Your task to perform on an android device: Open notification settings Image 0: 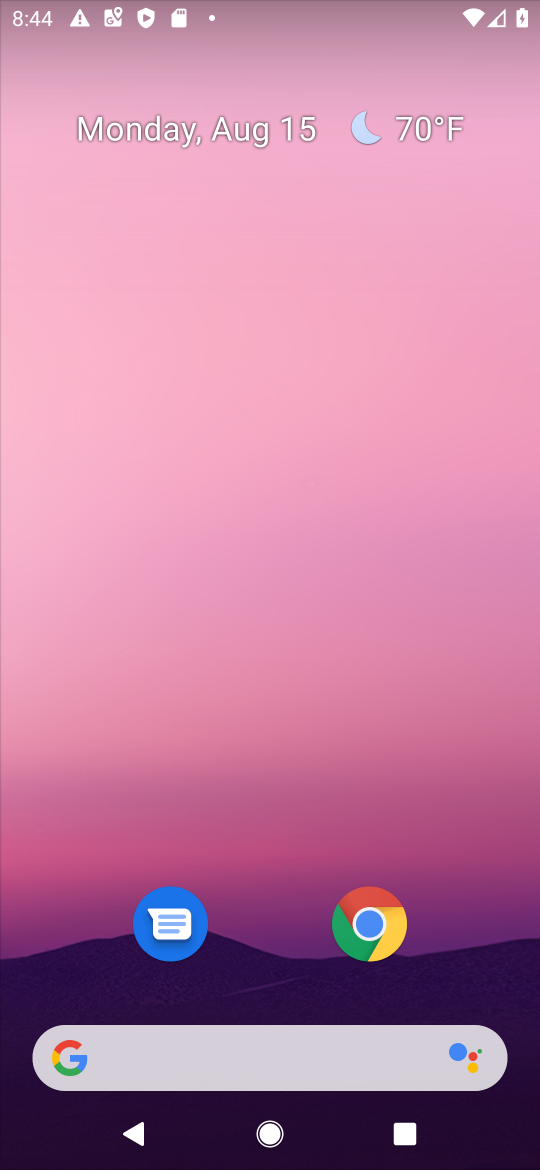
Step 0: drag from (497, 979) to (460, 226)
Your task to perform on an android device: Open notification settings Image 1: 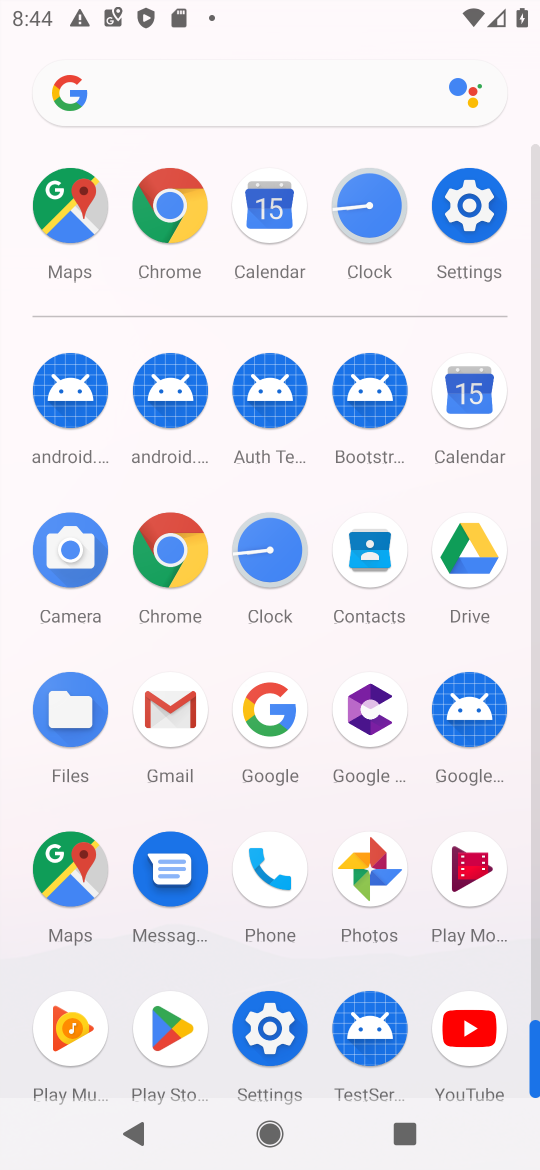
Step 1: click (269, 1027)
Your task to perform on an android device: Open notification settings Image 2: 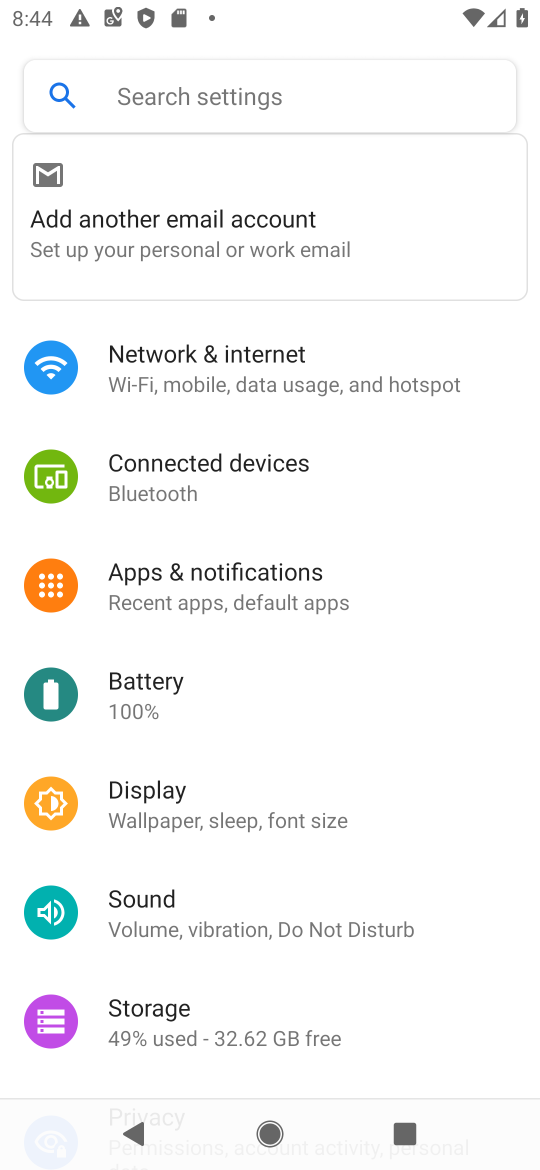
Step 2: click (211, 579)
Your task to perform on an android device: Open notification settings Image 3: 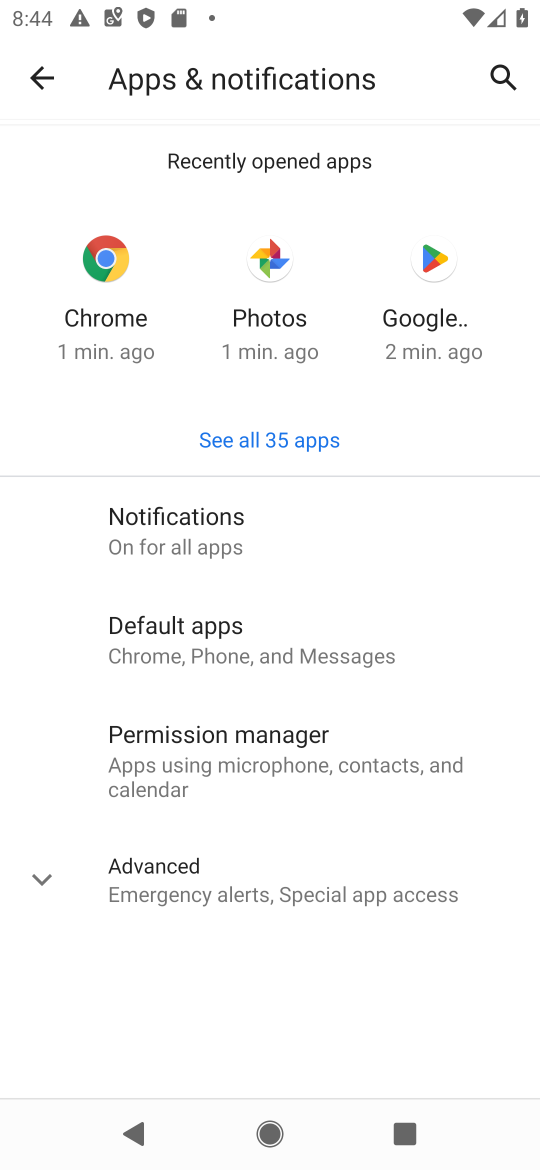
Step 3: click (170, 519)
Your task to perform on an android device: Open notification settings Image 4: 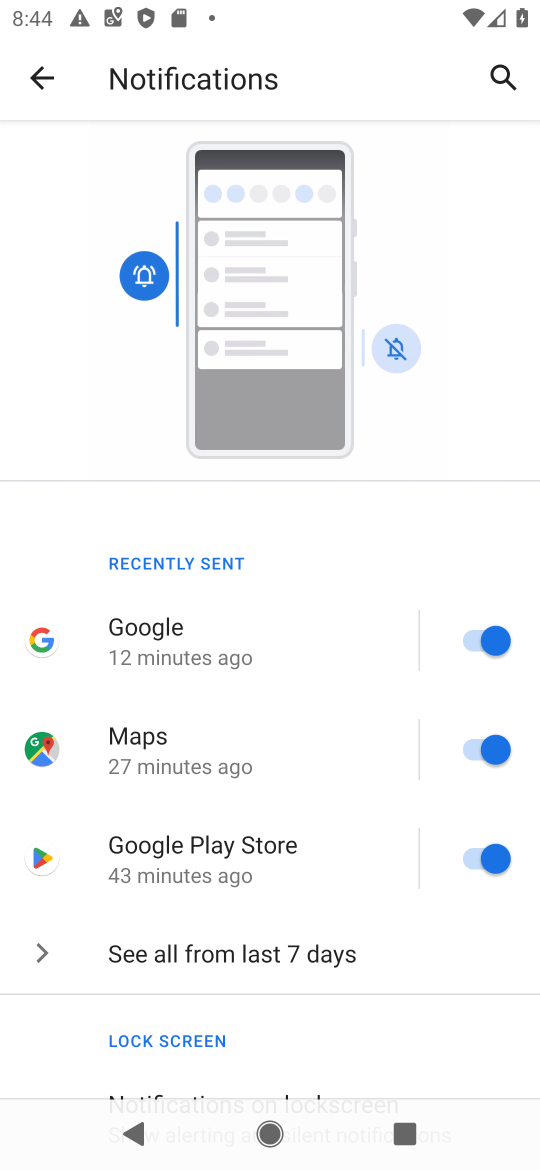
Step 4: drag from (391, 853) to (364, 284)
Your task to perform on an android device: Open notification settings Image 5: 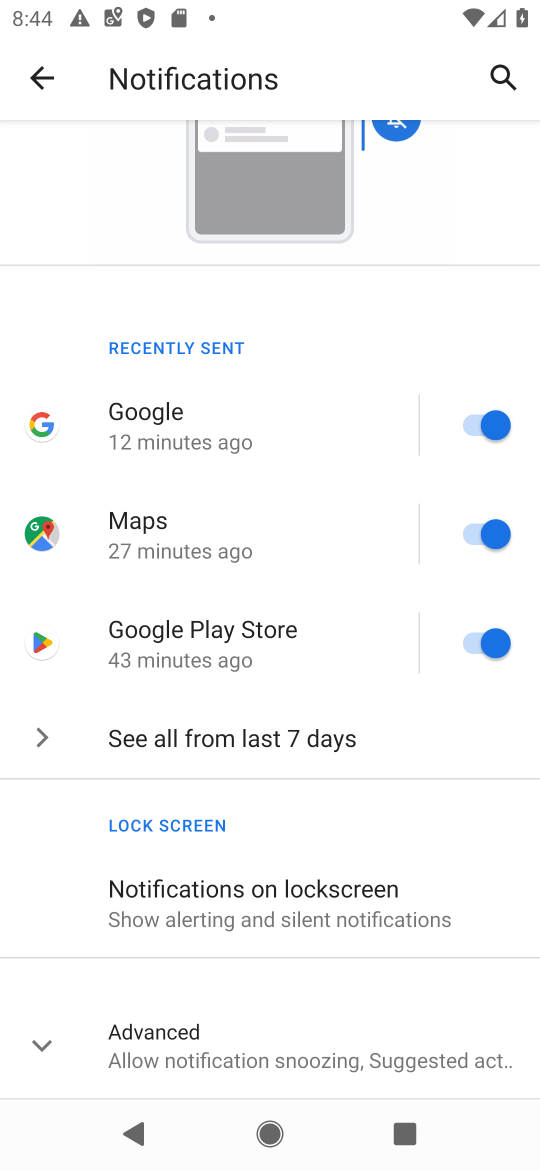
Step 5: click (28, 1044)
Your task to perform on an android device: Open notification settings Image 6: 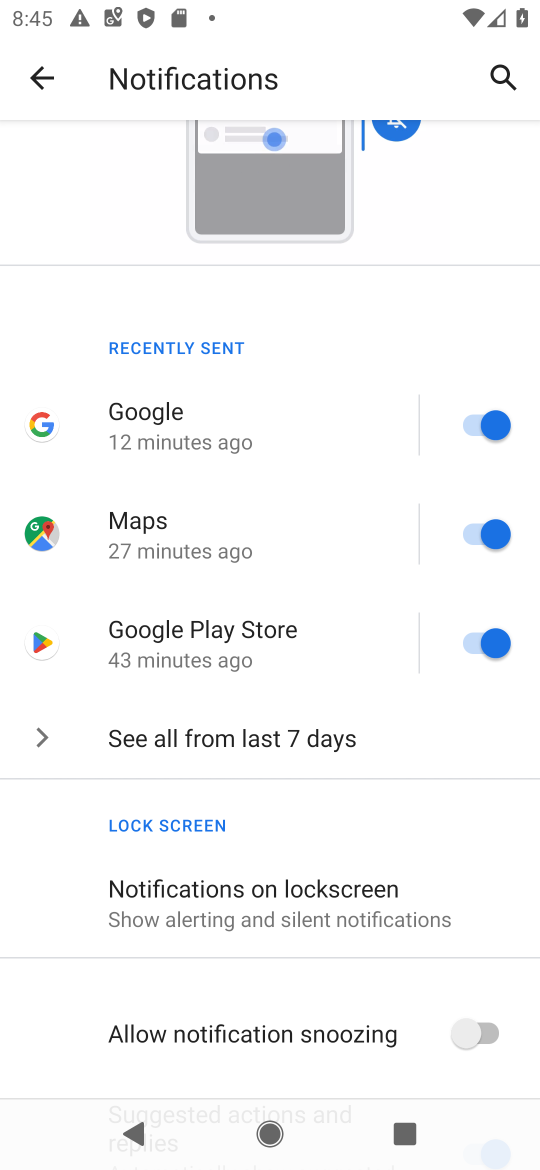
Step 6: task complete